Your task to perform on an android device: allow cookies in the chrome app Image 0: 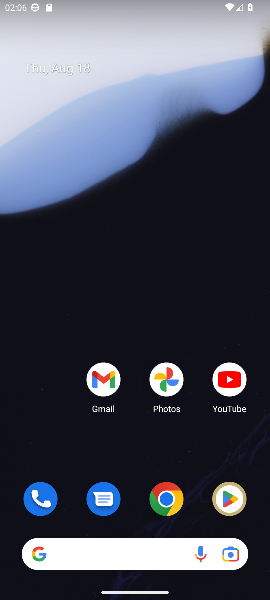
Step 0: click (168, 500)
Your task to perform on an android device: allow cookies in the chrome app Image 1: 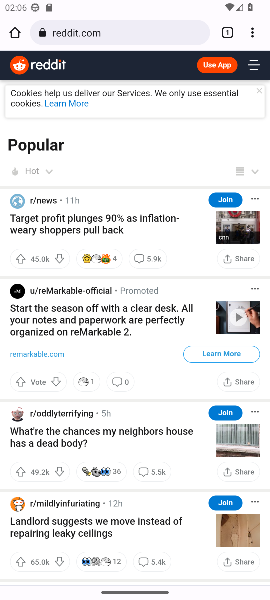
Step 1: click (253, 47)
Your task to perform on an android device: allow cookies in the chrome app Image 2: 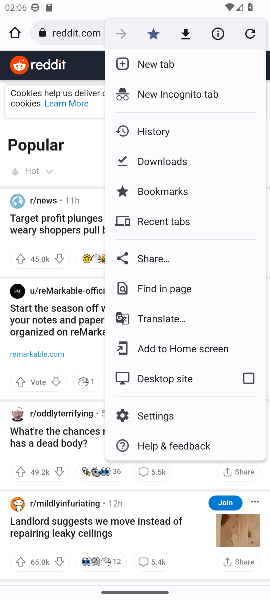
Step 2: click (154, 415)
Your task to perform on an android device: allow cookies in the chrome app Image 3: 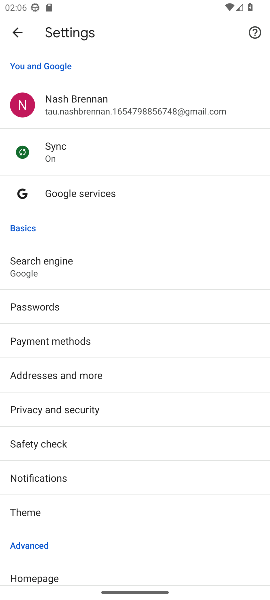
Step 3: drag from (100, 508) to (138, 227)
Your task to perform on an android device: allow cookies in the chrome app Image 4: 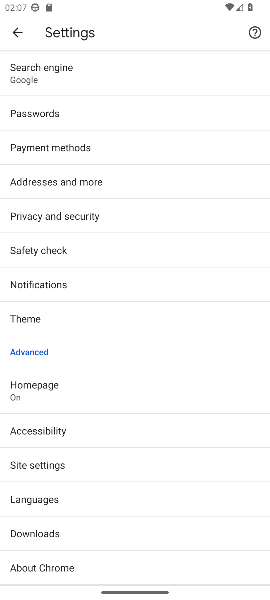
Step 4: click (37, 465)
Your task to perform on an android device: allow cookies in the chrome app Image 5: 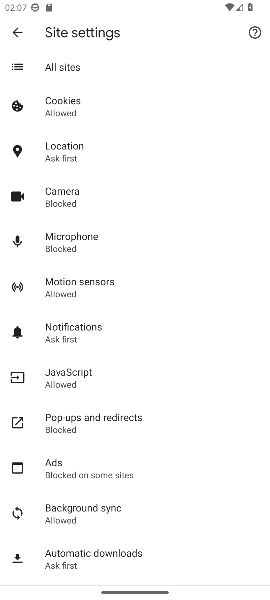
Step 5: click (58, 96)
Your task to perform on an android device: allow cookies in the chrome app Image 6: 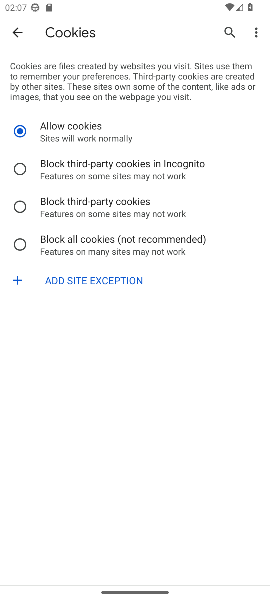
Step 6: task complete